Your task to perform on an android device: What's the weather today? Image 0: 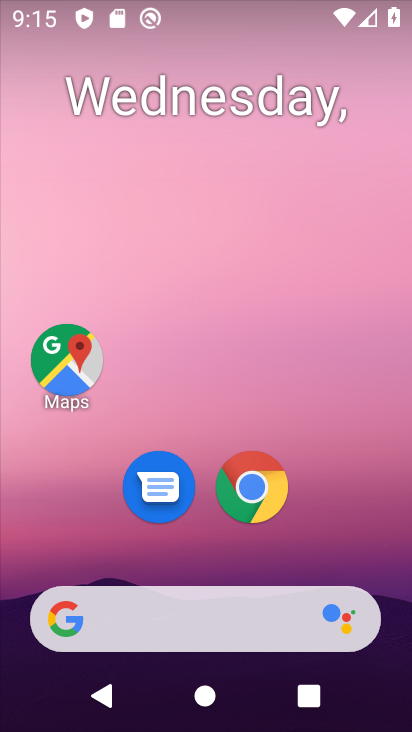
Step 0: drag from (268, 687) to (297, 6)
Your task to perform on an android device: What's the weather today? Image 1: 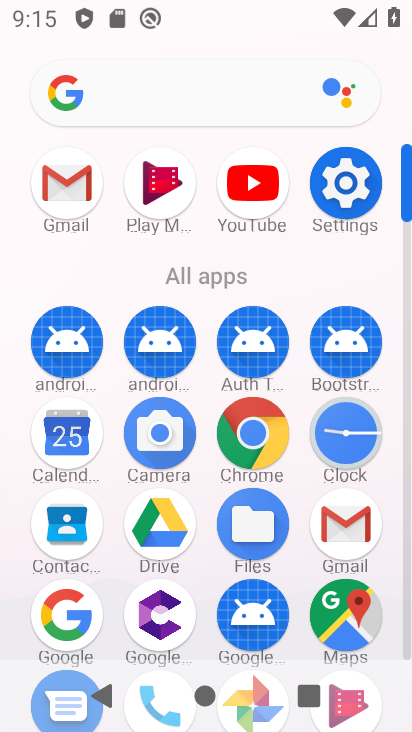
Step 1: type "What's the weather today?"
Your task to perform on an android device: What's the weather today? Image 2: 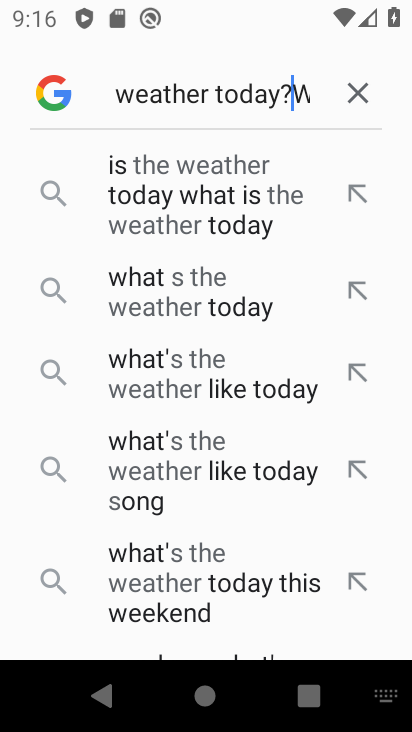
Step 2: click (370, 95)
Your task to perform on an android device: What's the weather today? Image 3: 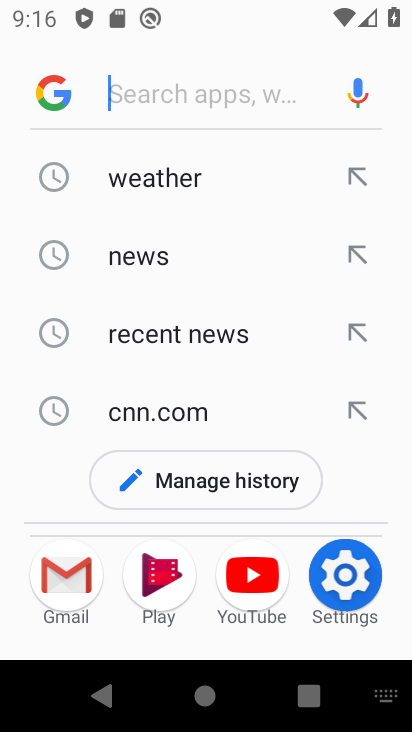
Step 3: click (195, 113)
Your task to perform on an android device: What's the weather today? Image 4: 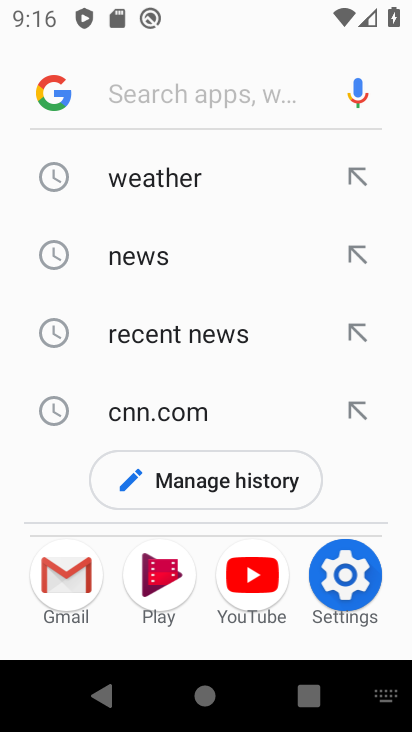
Step 4: type "What's the weather today?"
Your task to perform on an android device: What's the weather today? Image 5: 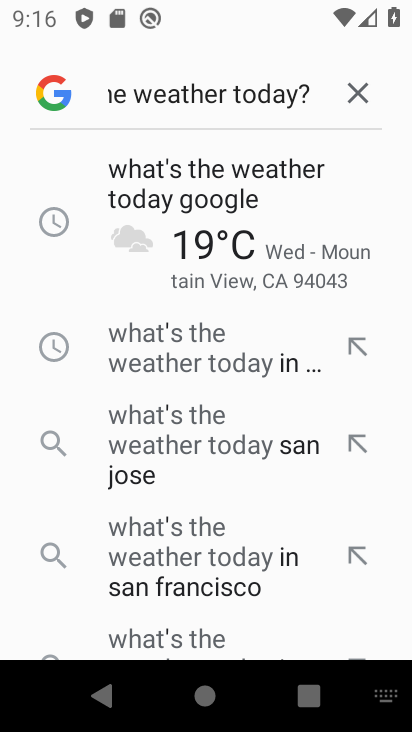
Step 5: click (243, 200)
Your task to perform on an android device: What's the weather today? Image 6: 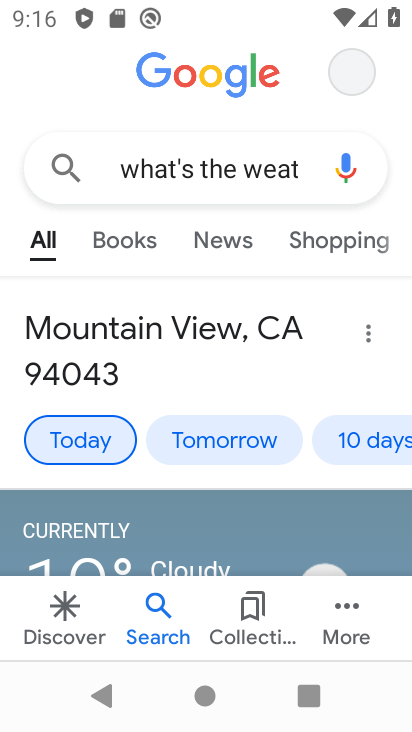
Step 6: task complete